Your task to perform on an android device: see sites visited before in the chrome app Image 0: 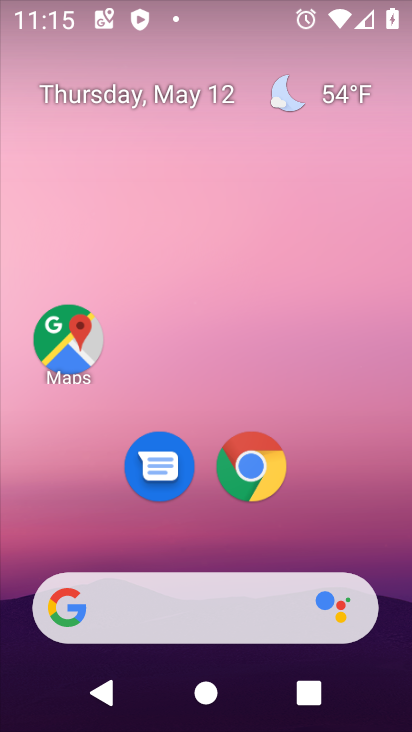
Step 0: click (293, 112)
Your task to perform on an android device: see sites visited before in the chrome app Image 1: 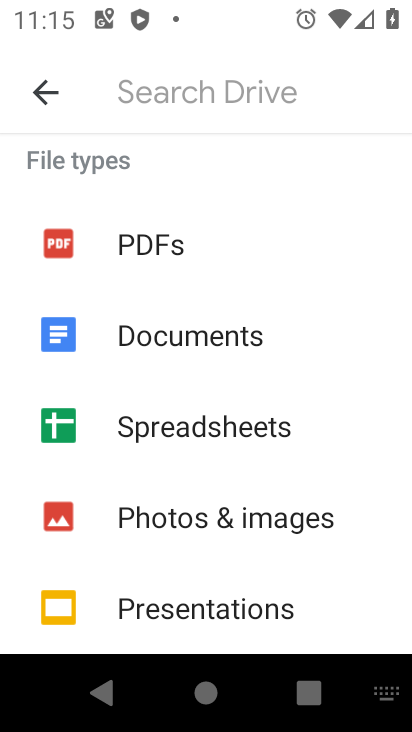
Step 1: press home button
Your task to perform on an android device: see sites visited before in the chrome app Image 2: 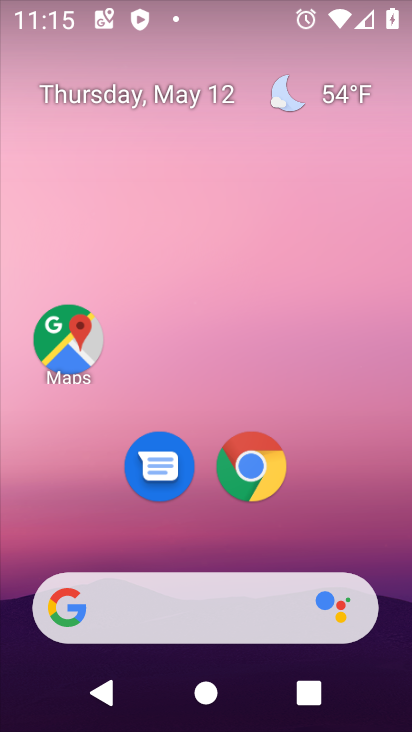
Step 2: drag from (375, 522) to (304, 156)
Your task to perform on an android device: see sites visited before in the chrome app Image 3: 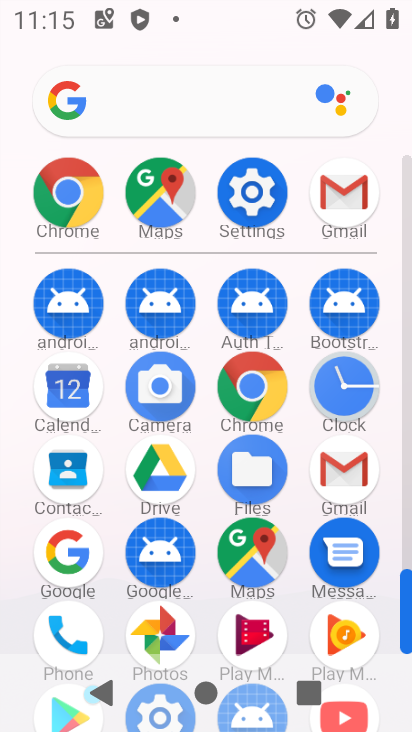
Step 3: click (234, 409)
Your task to perform on an android device: see sites visited before in the chrome app Image 4: 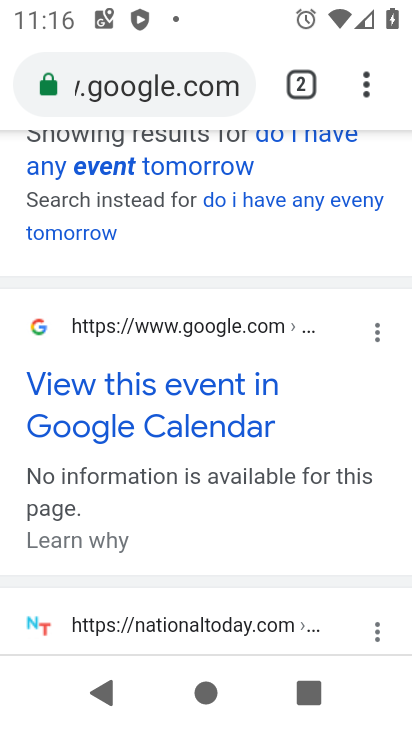
Step 4: task complete